Your task to perform on an android device: toggle translation in the chrome app Image 0: 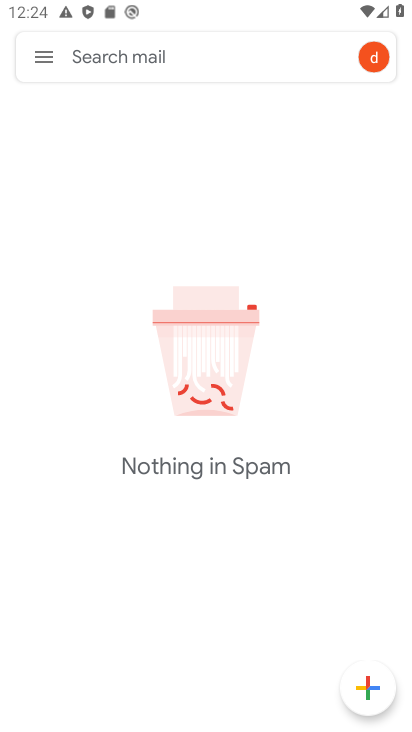
Step 0: press home button
Your task to perform on an android device: toggle translation in the chrome app Image 1: 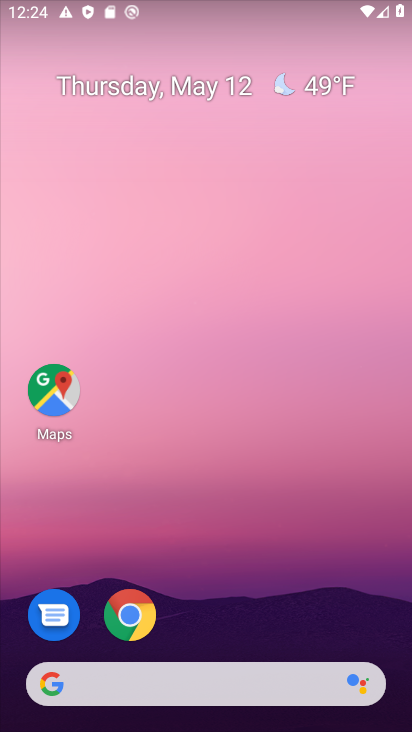
Step 1: drag from (191, 670) to (187, 348)
Your task to perform on an android device: toggle translation in the chrome app Image 2: 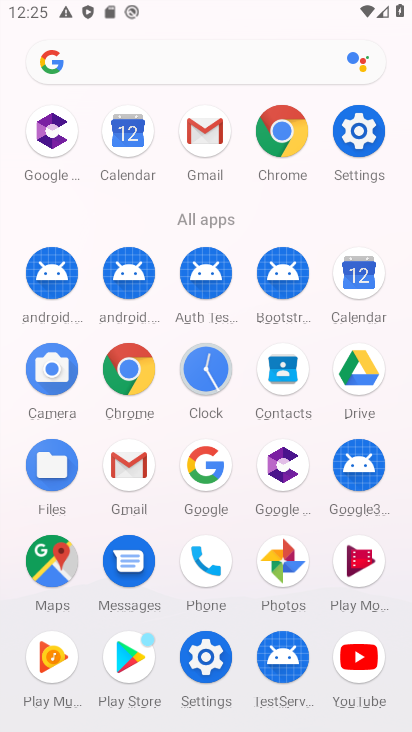
Step 2: click (128, 380)
Your task to perform on an android device: toggle translation in the chrome app Image 3: 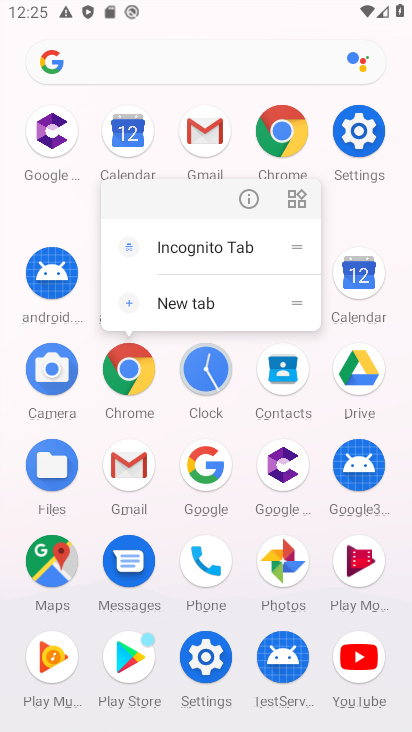
Step 3: click (128, 380)
Your task to perform on an android device: toggle translation in the chrome app Image 4: 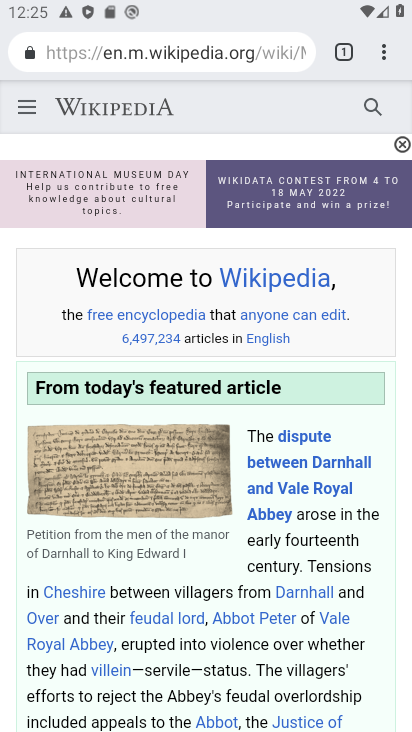
Step 4: click (373, 66)
Your task to perform on an android device: toggle translation in the chrome app Image 5: 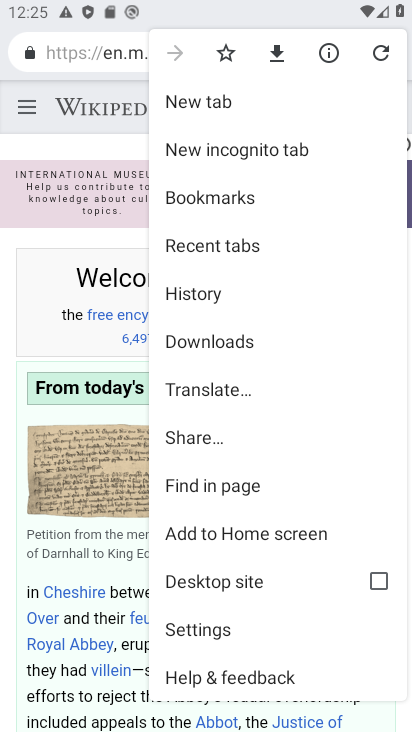
Step 5: click (200, 624)
Your task to perform on an android device: toggle translation in the chrome app Image 6: 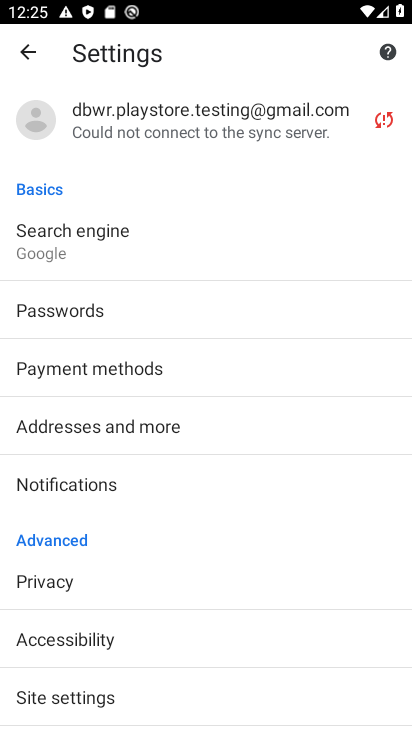
Step 6: drag from (104, 594) to (130, 542)
Your task to perform on an android device: toggle translation in the chrome app Image 7: 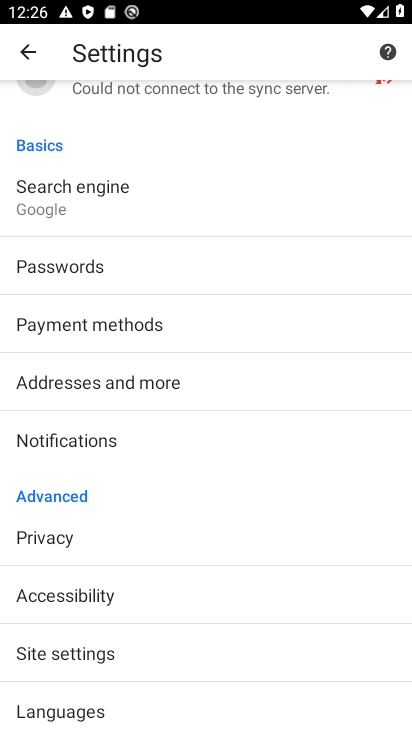
Step 7: click (81, 715)
Your task to perform on an android device: toggle translation in the chrome app Image 8: 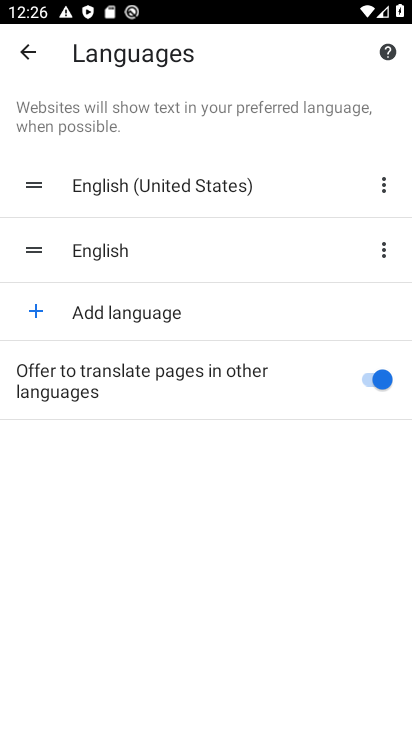
Step 8: task complete